Your task to perform on an android device: turn notification dots on Image 0: 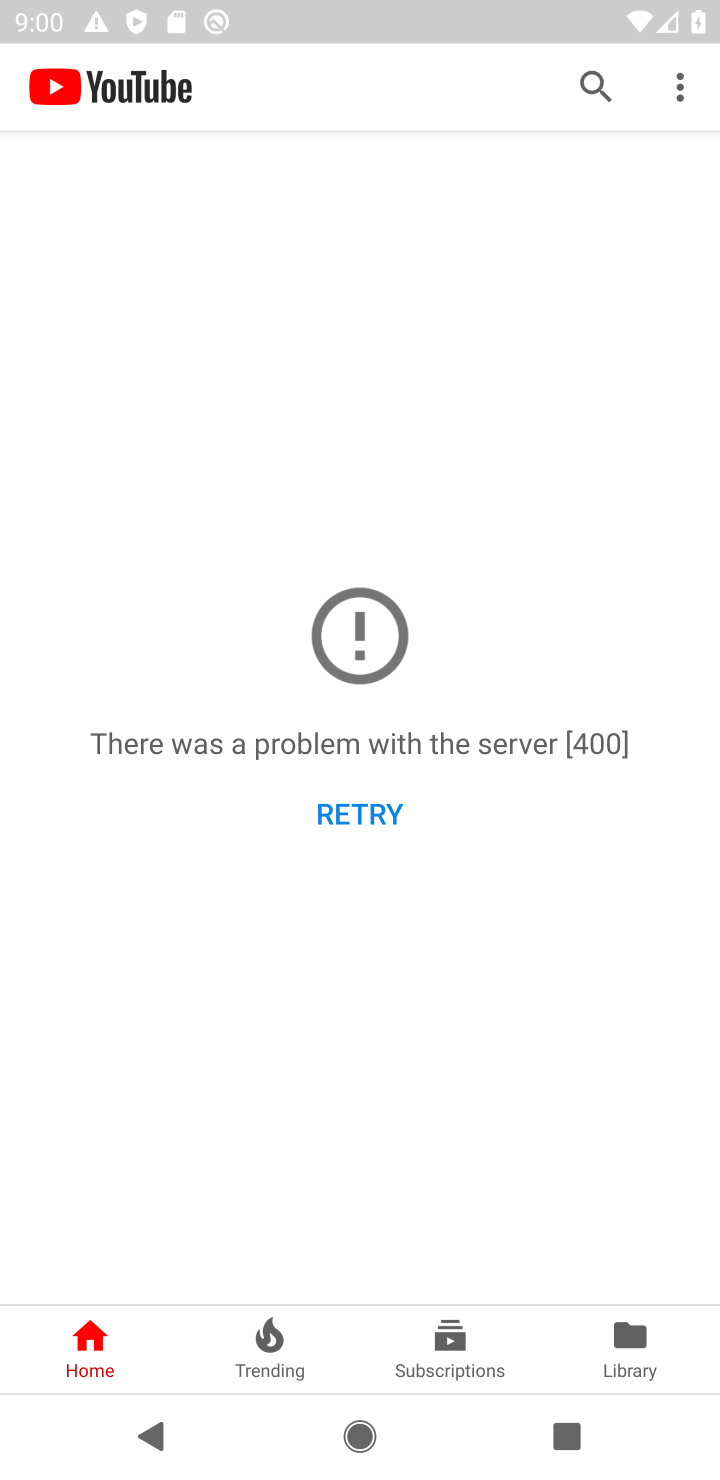
Step 0: press home button
Your task to perform on an android device: turn notification dots on Image 1: 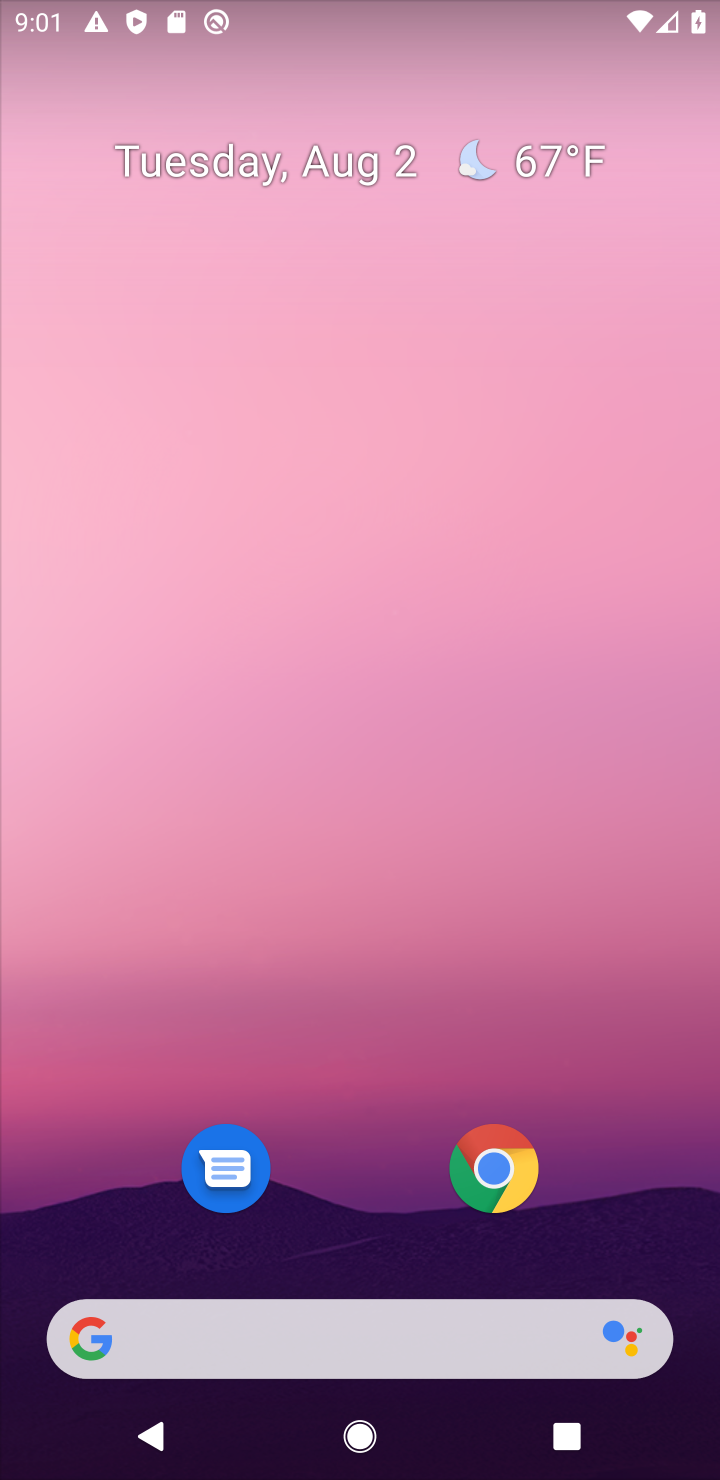
Step 1: drag from (678, 1221) to (665, 72)
Your task to perform on an android device: turn notification dots on Image 2: 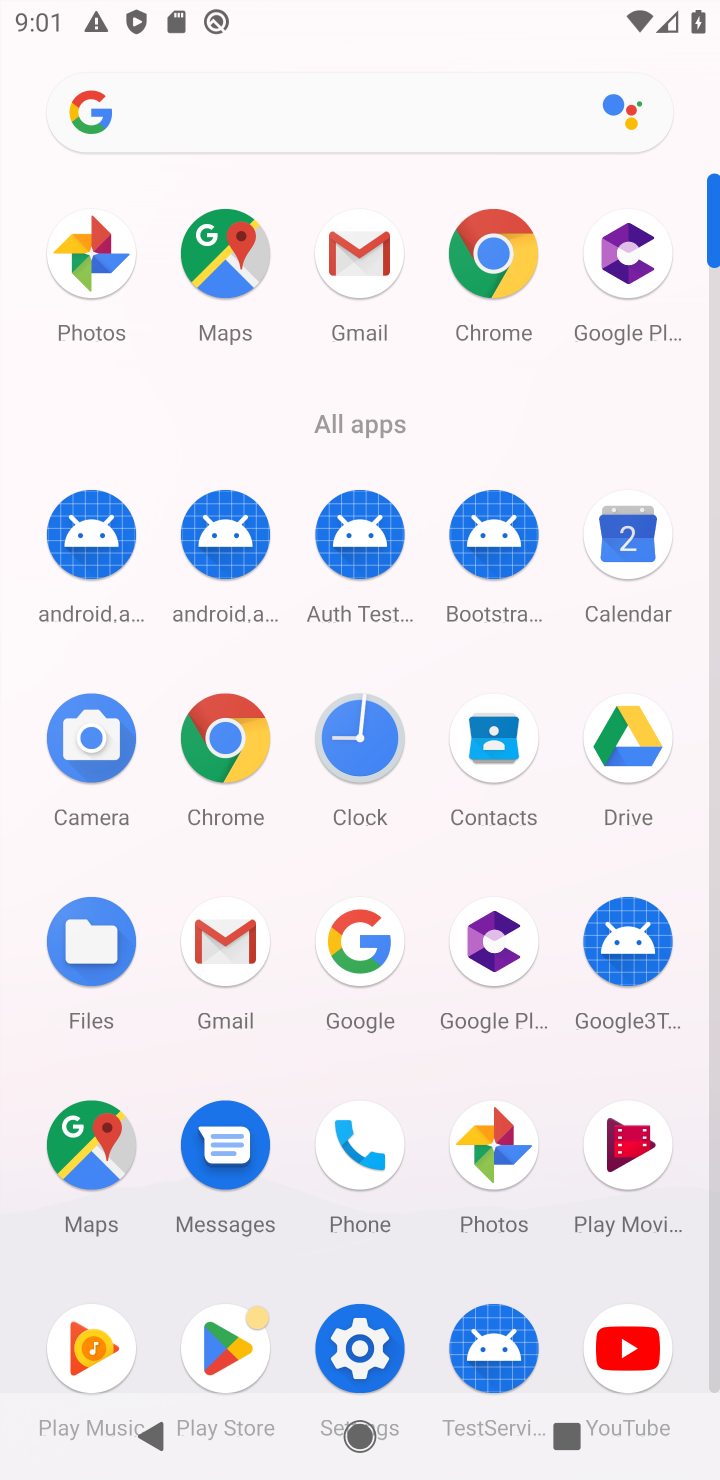
Step 2: click (355, 1343)
Your task to perform on an android device: turn notification dots on Image 3: 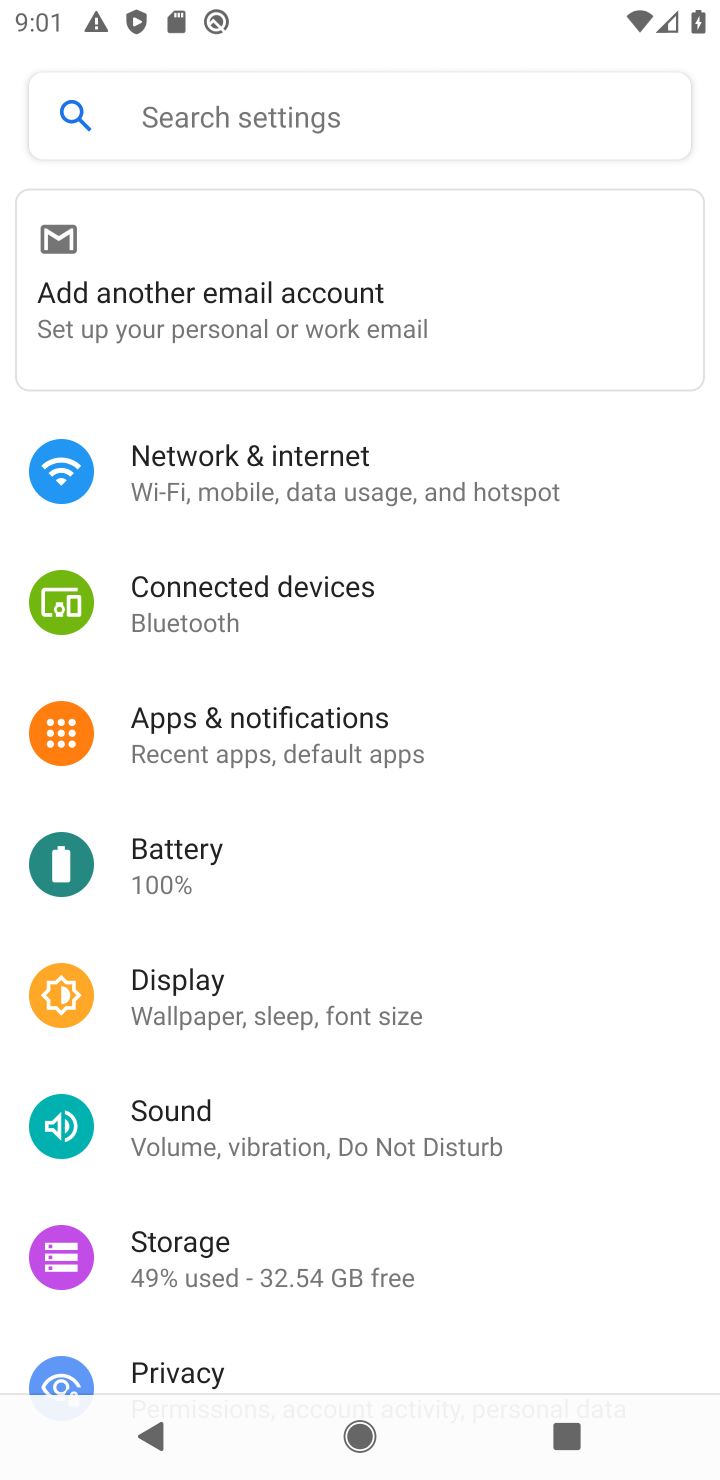
Step 3: click (433, 746)
Your task to perform on an android device: turn notification dots on Image 4: 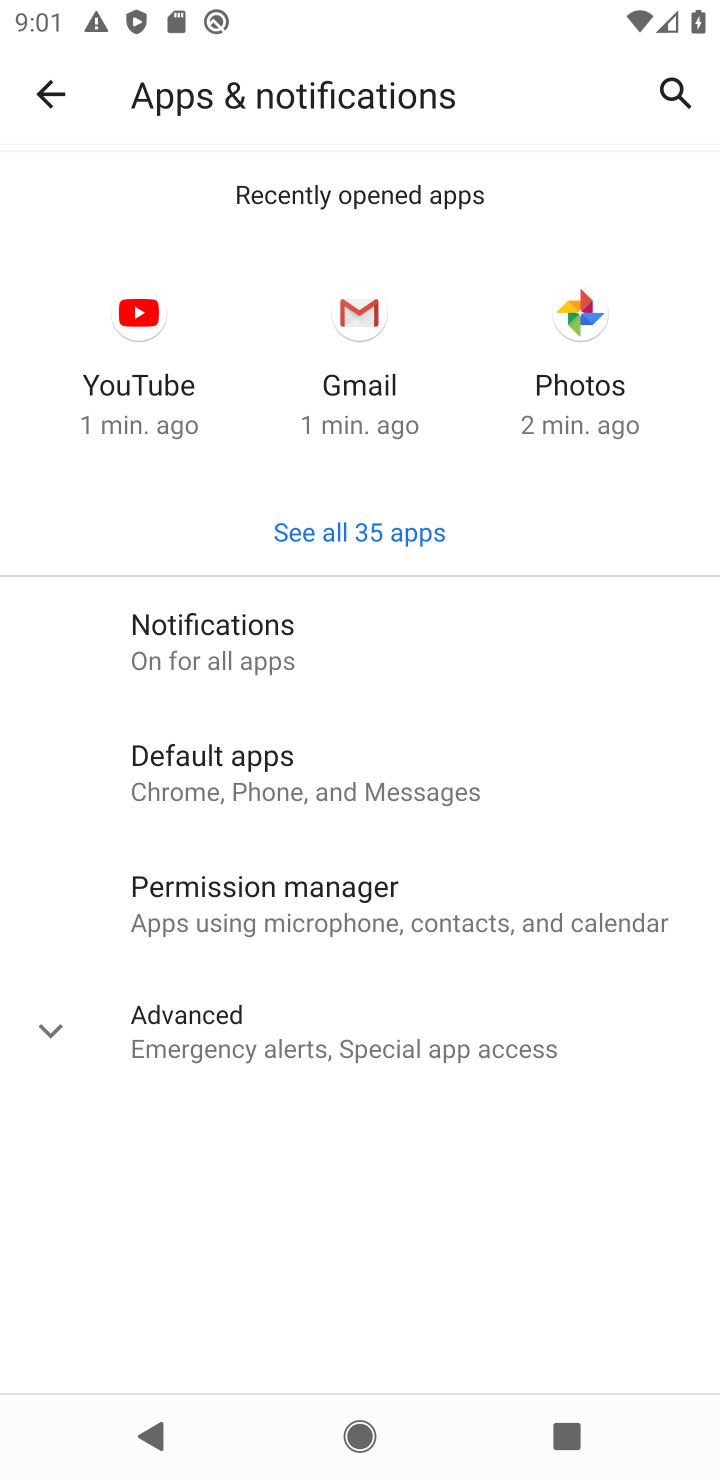
Step 4: click (391, 645)
Your task to perform on an android device: turn notification dots on Image 5: 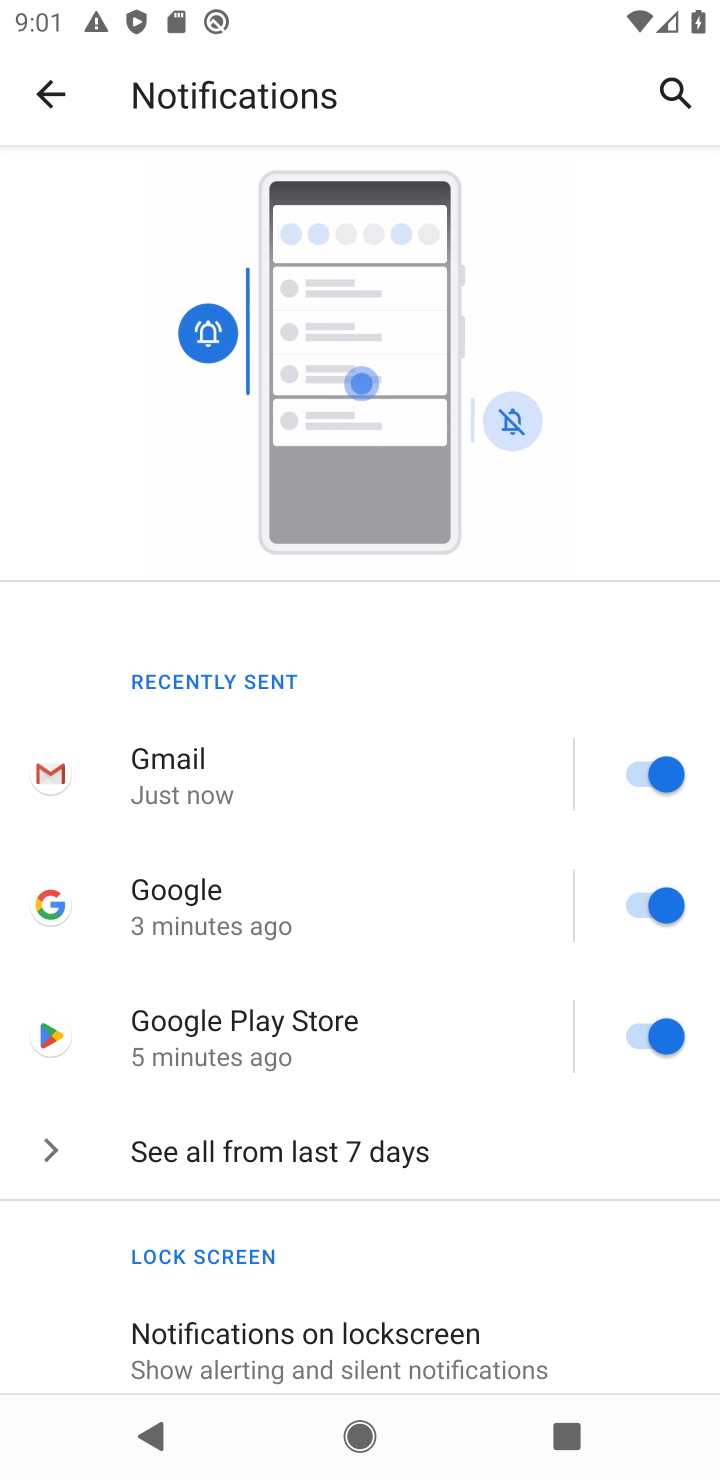
Step 5: drag from (515, 1284) to (500, 419)
Your task to perform on an android device: turn notification dots on Image 6: 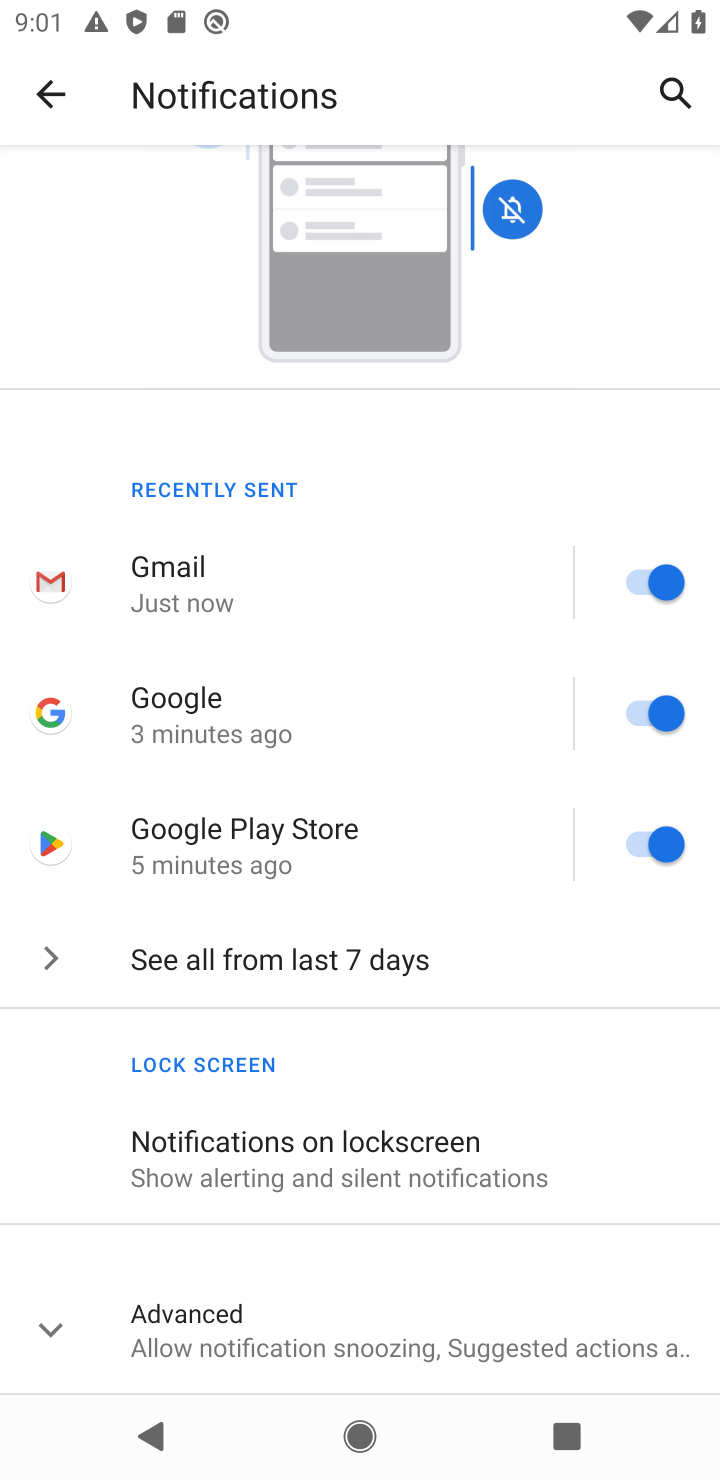
Step 6: click (434, 1358)
Your task to perform on an android device: turn notification dots on Image 7: 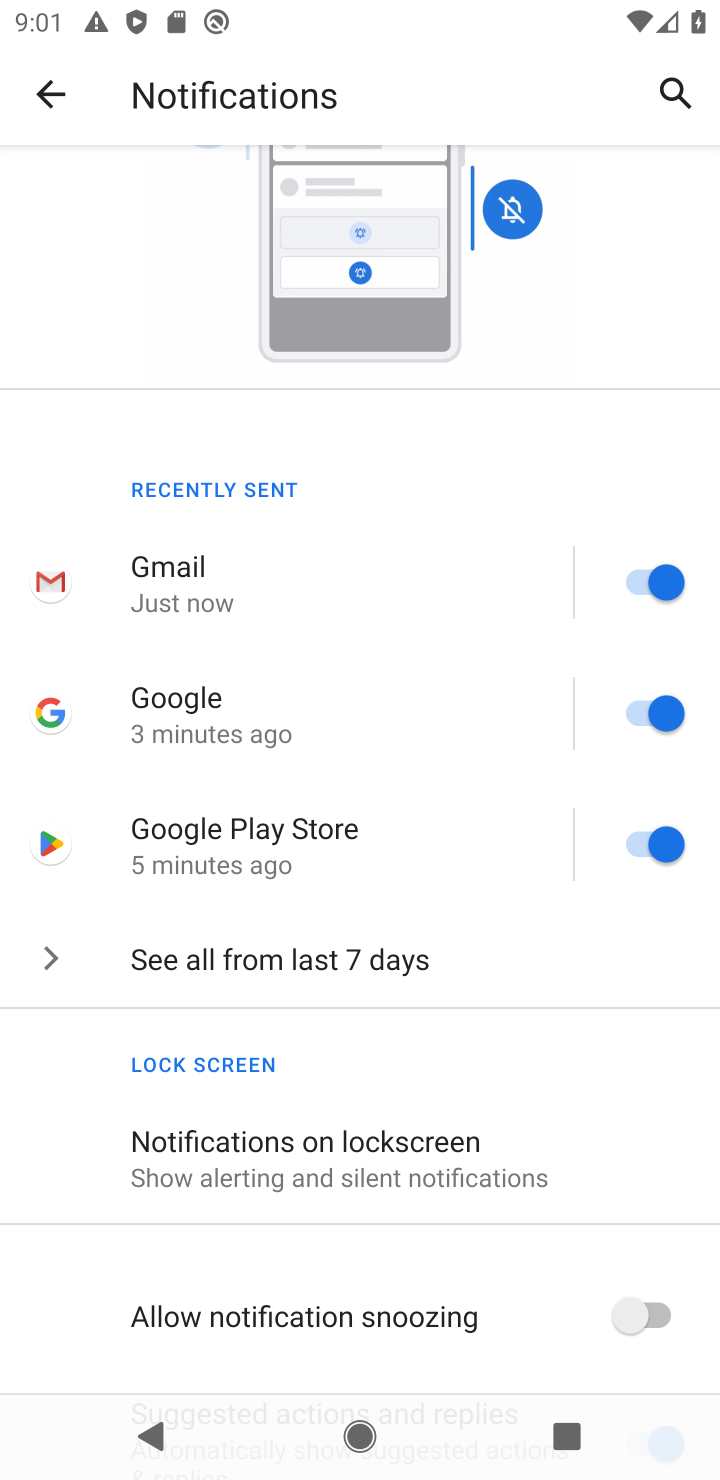
Step 7: task complete